Your task to perform on an android device: Open Youtube and go to the subscriptions tab Image 0: 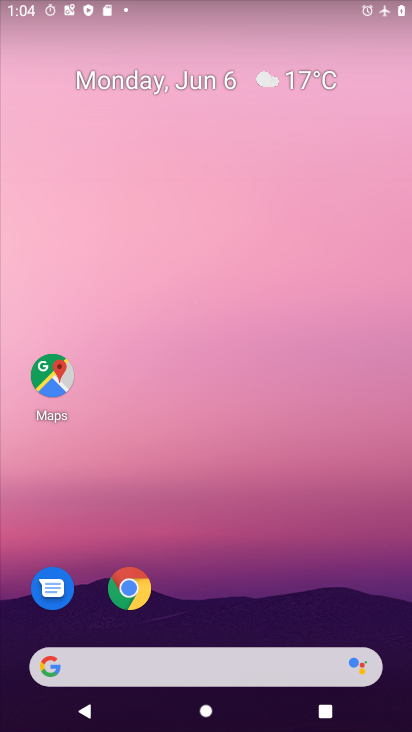
Step 0: drag from (256, 525) to (298, 147)
Your task to perform on an android device: Open Youtube and go to the subscriptions tab Image 1: 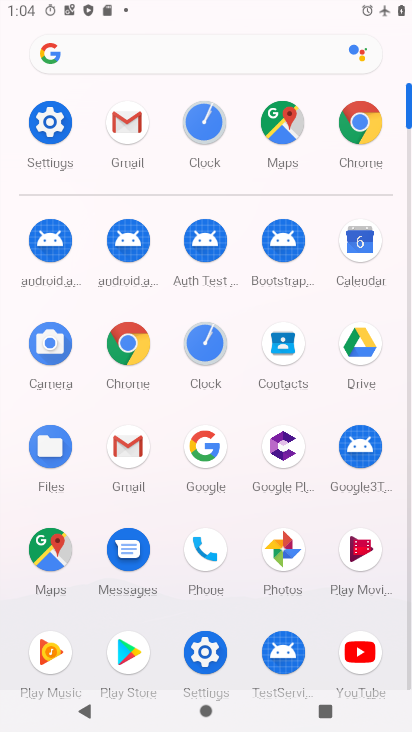
Step 1: click (359, 651)
Your task to perform on an android device: Open Youtube and go to the subscriptions tab Image 2: 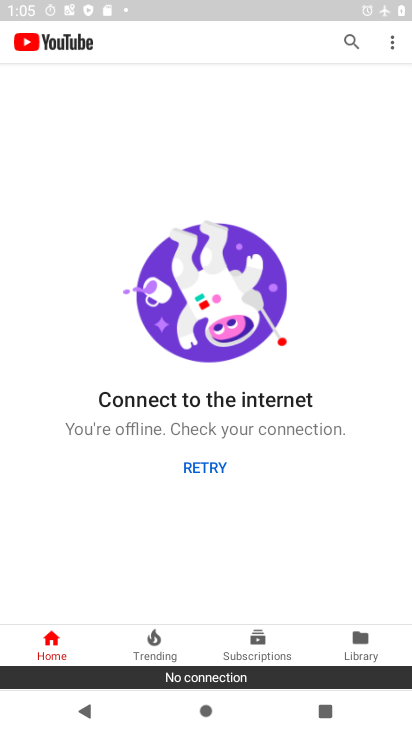
Step 2: click (257, 652)
Your task to perform on an android device: Open Youtube and go to the subscriptions tab Image 3: 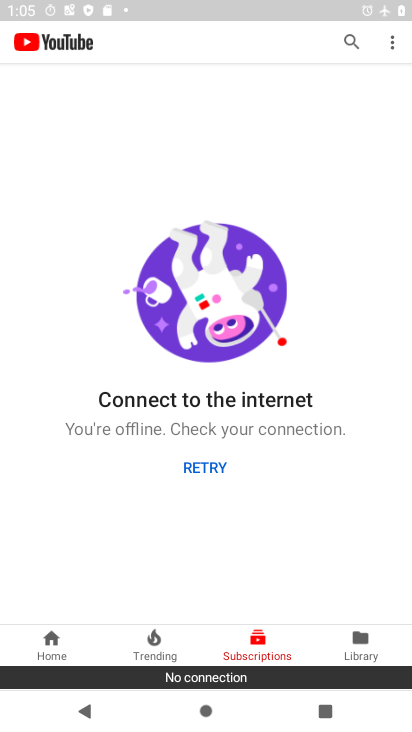
Step 3: task complete